Your task to perform on an android device: check battery use Image 0: 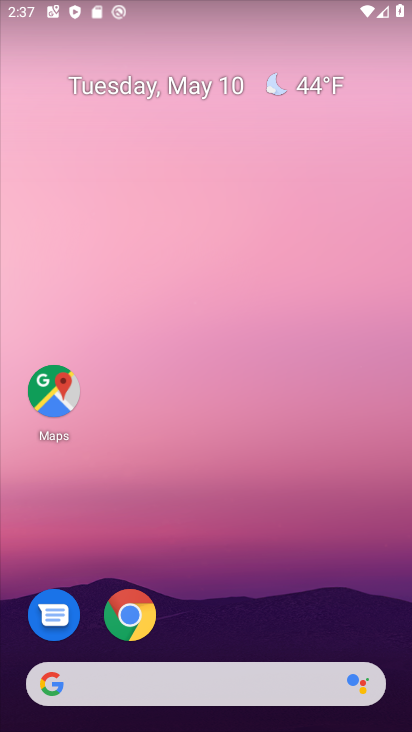
Step 0: drag from (253, 554) to (267, 50)
Your task to perform on an android device: check battery use Image 1: 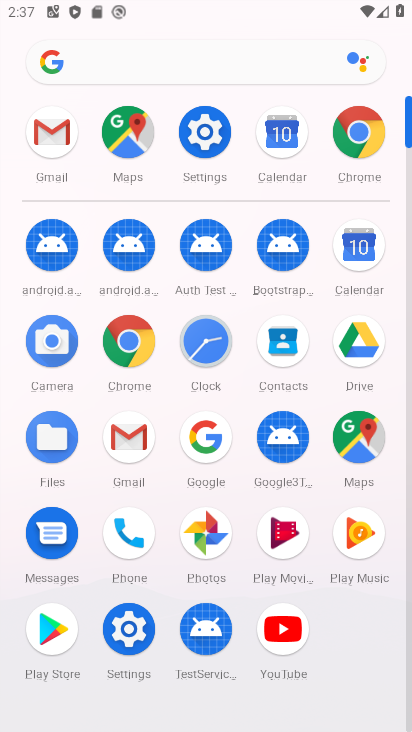
Step 1: click (178, 108)
Your task to perform on an android device: check battery use Image 2: 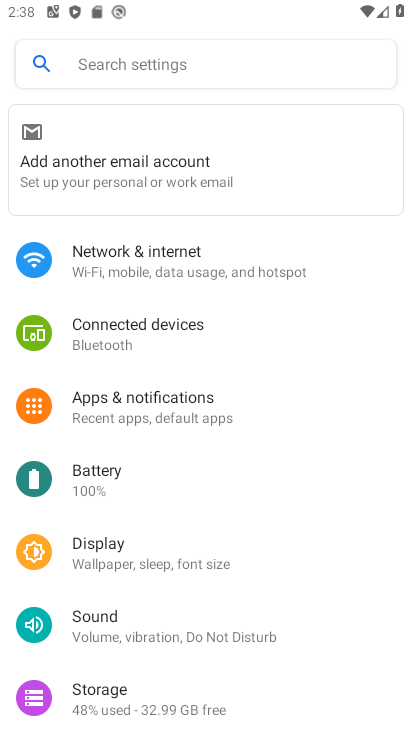
Step 2: click (112, 486)
Your task to perform on an android device: check battery use Image 3: 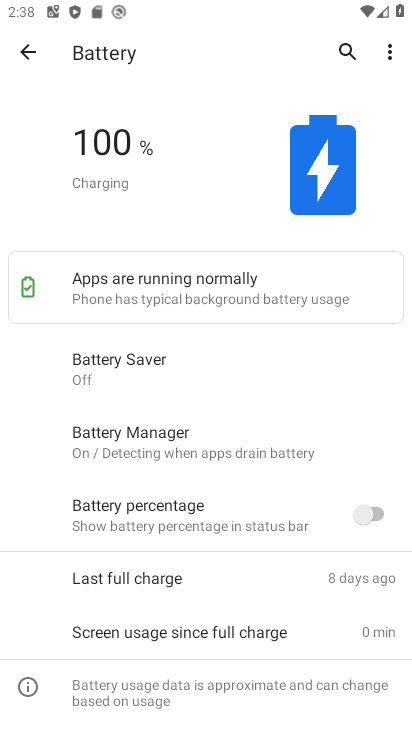
Step 3: task complete